Your task to perform on an android device: Search for flights from Mexico city to Zurich Image 0: 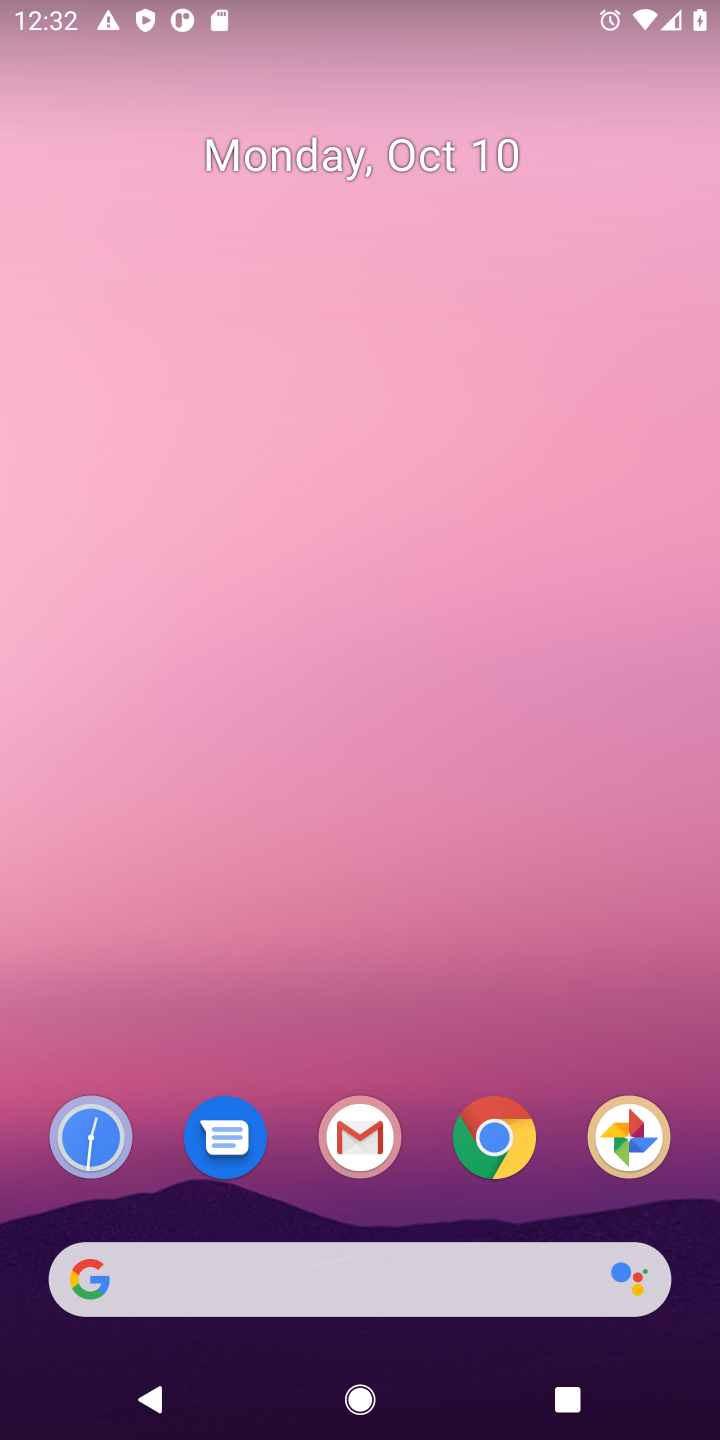
Step 0: drag from (400, 1097) to (359, 67)
Your task to perform on an android device: Search for flights from Mexico city to Zurich Image 1: 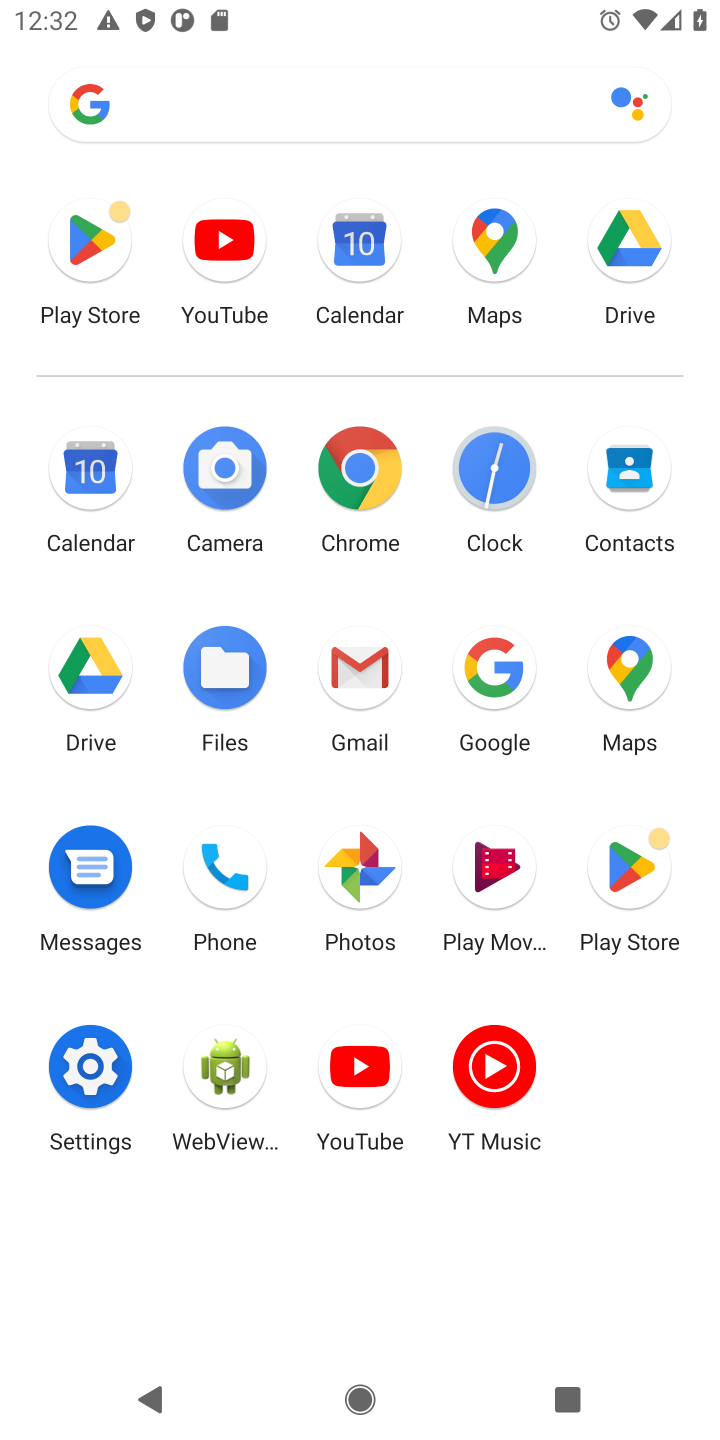
Step 1: click (351, 470)
Your task to perform on an android device: Search for flights from Mexico city to Zurich Image 2: 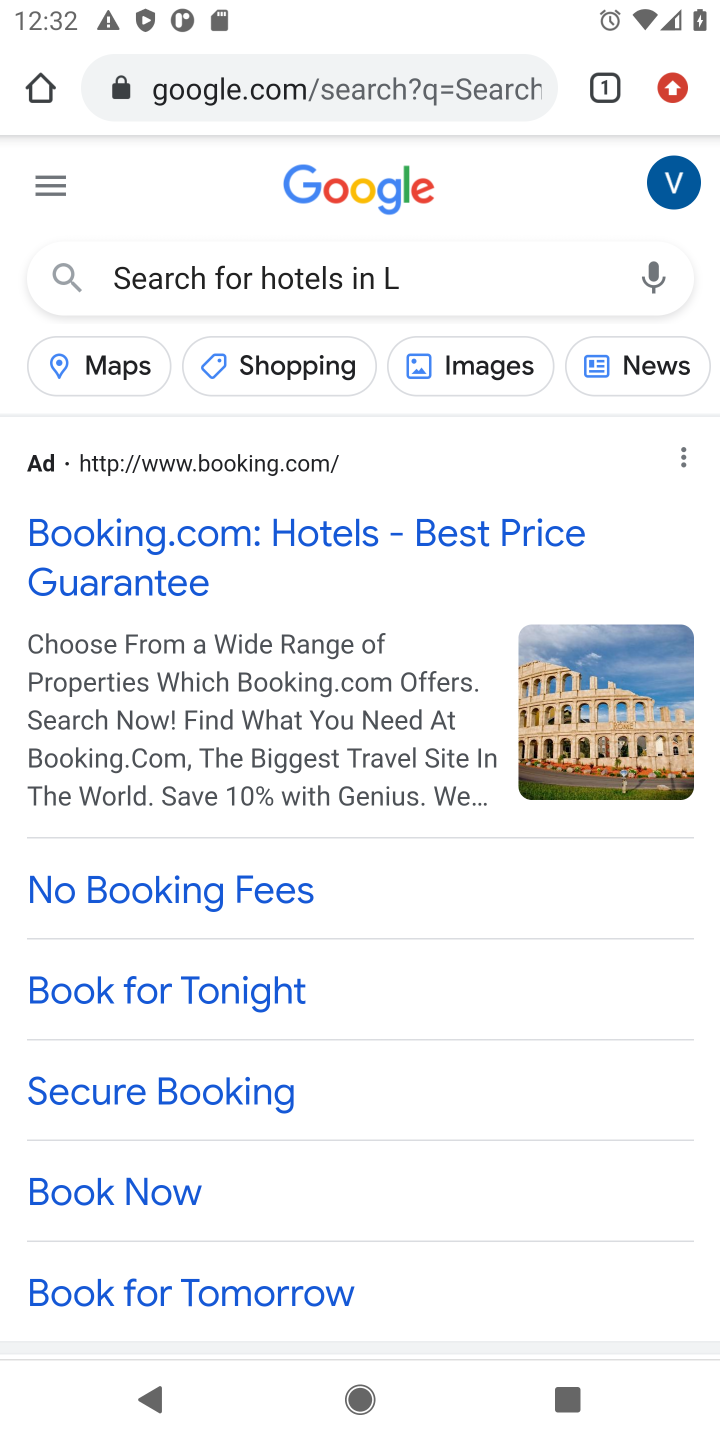
Step 2: click (371, 88)
Your task to perform on an android device: Search for flights from Mexico city to Zurich Image 3: 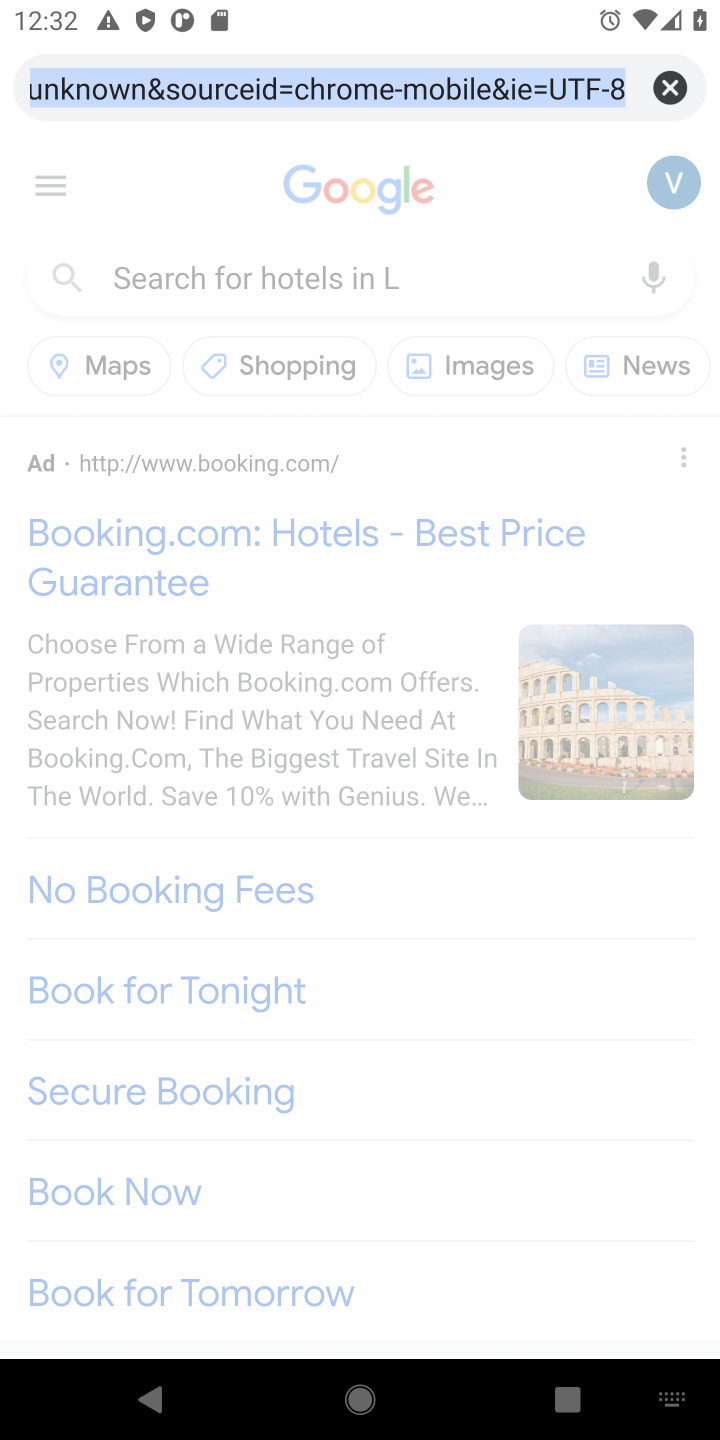
Step 3: click (669, 89)
Your task to perform on an android device: Search for flights from Mexico city to Zurich Image 4: 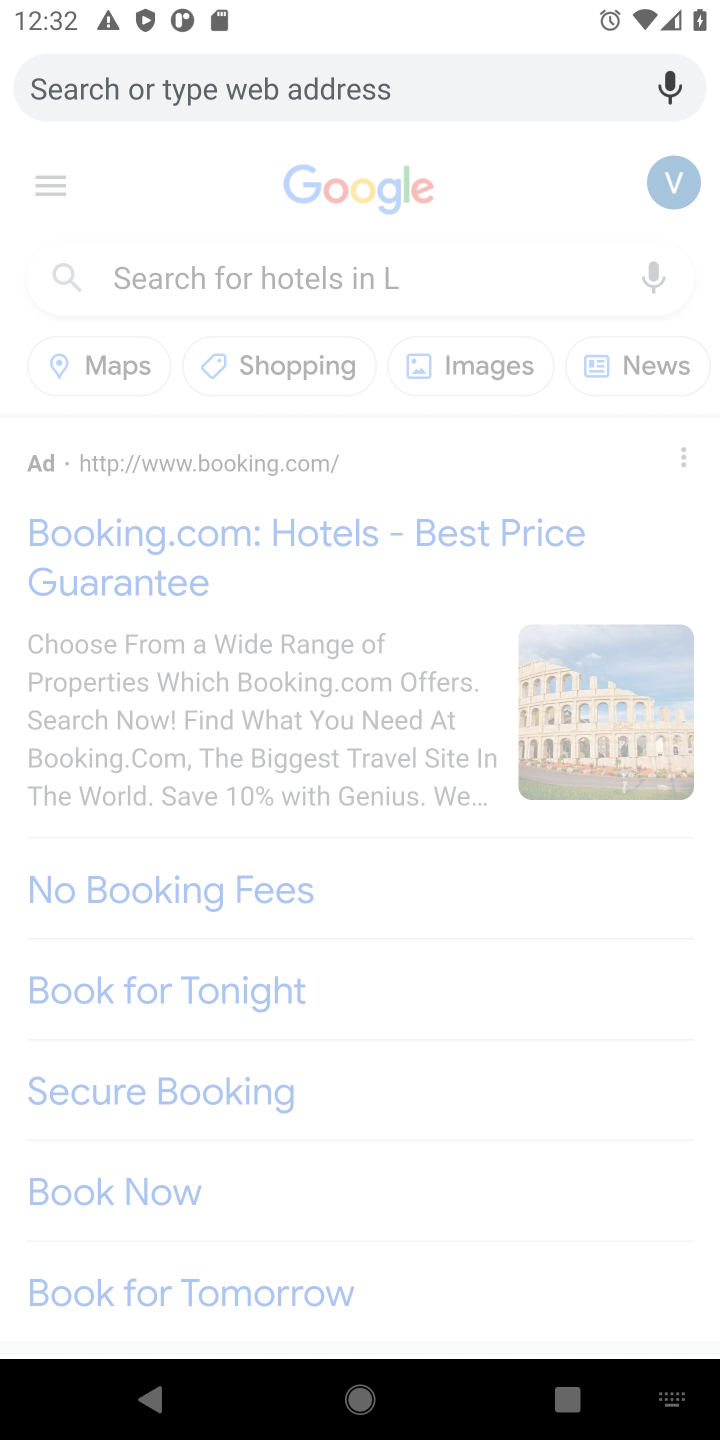
Step 4: type "Search for flights from Mexico city to Zurich"
Your task to perform on an android device: Search for flights from Mexico city to Zurich Image 5: 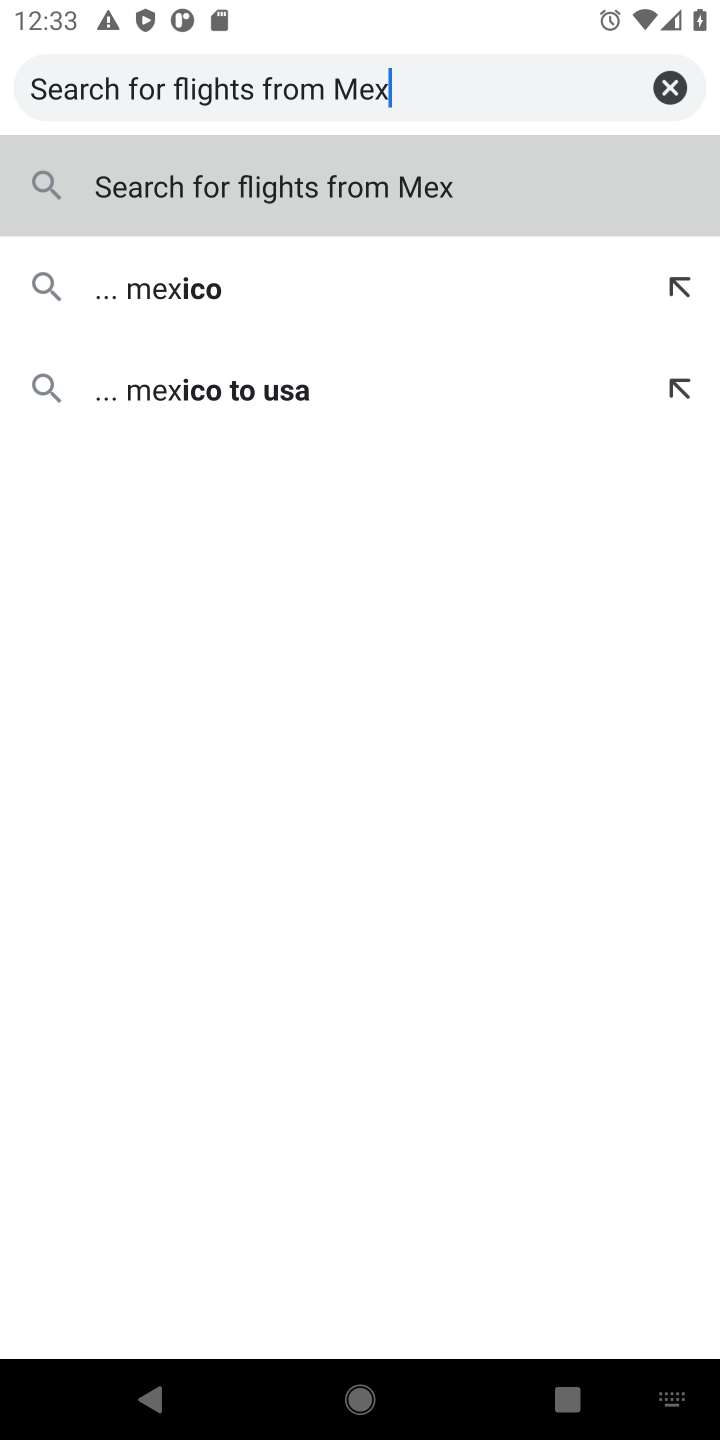
Step 5: click (406, 183)
Your task to perform on an android device: Search for flights from Mexico city to Zurich Image 6: 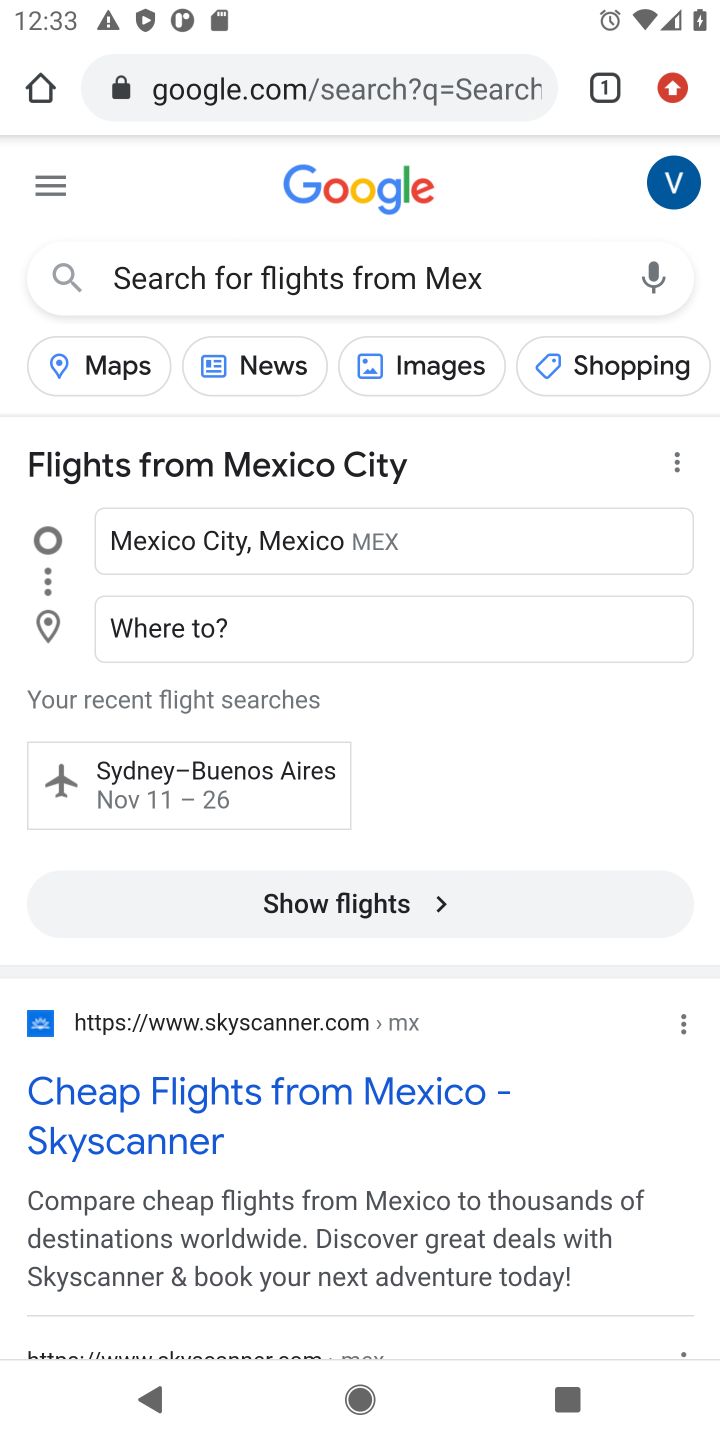
Step 6: task complete